Your task to perform on an android device: show emergency info Image 0: 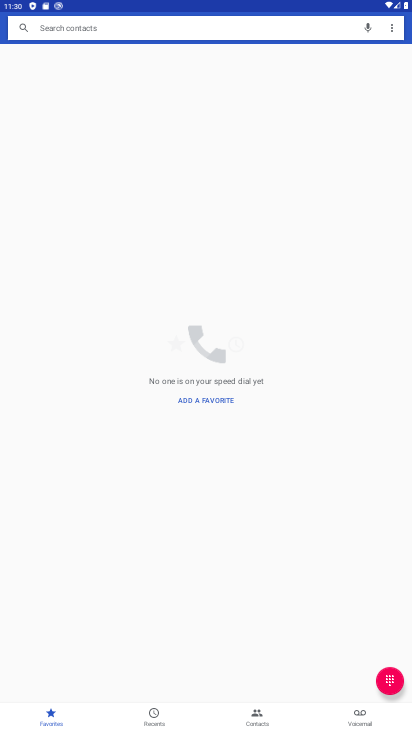
Step 0: press home button
Your task to perform on an android device: show emergency info Image 1: 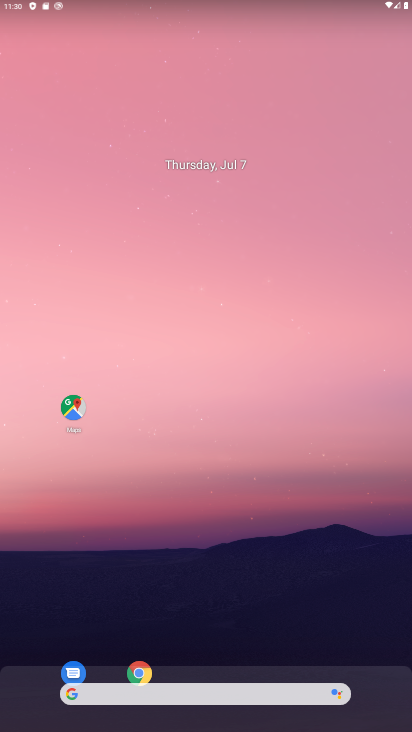
Step 1: drag from (231, 647) to (243, 25)
Your task to perform on an android device: show emergency info Image 2: 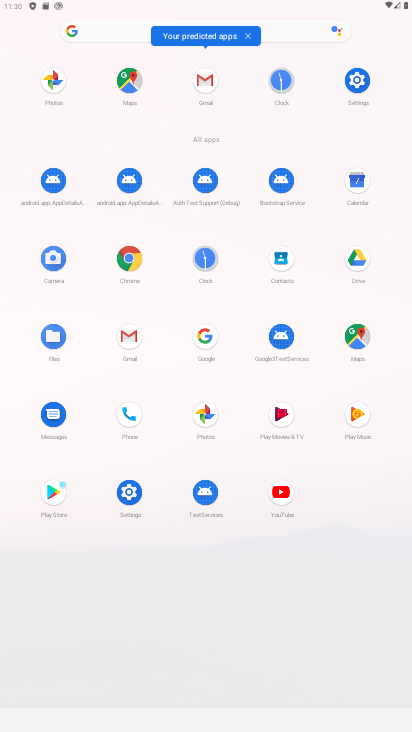
Step 2: click (130, 491)
Your task to perform on an android device: show emergency info Image 3: 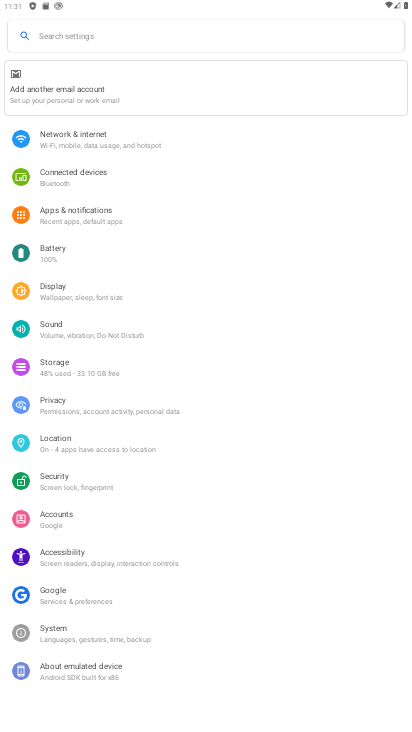
Step 3: click (84, 674)
Your task to perform on an android device: show emergency info Image 4: 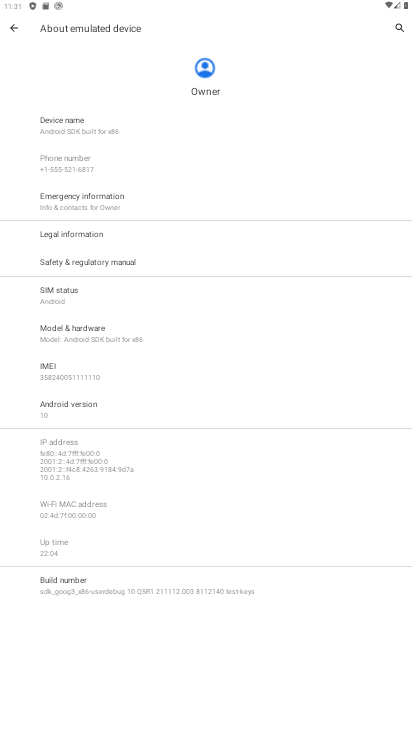
Step 4: click (102, 209)
Your task to perform on an android device: show emergency info Image 5: 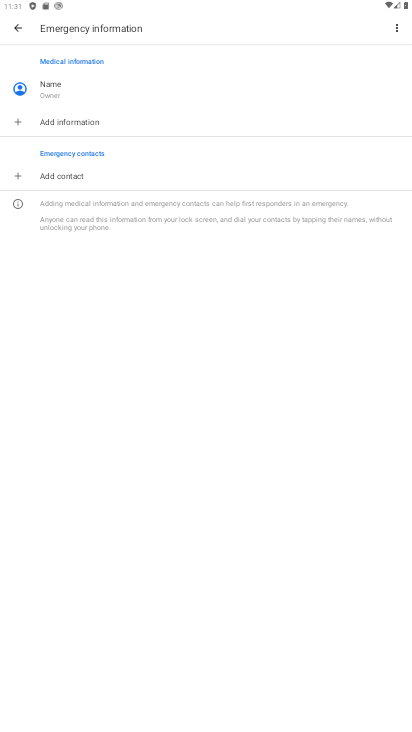
Step 5: task complete